Your task to perform on an android device: Open network settings Image 0: 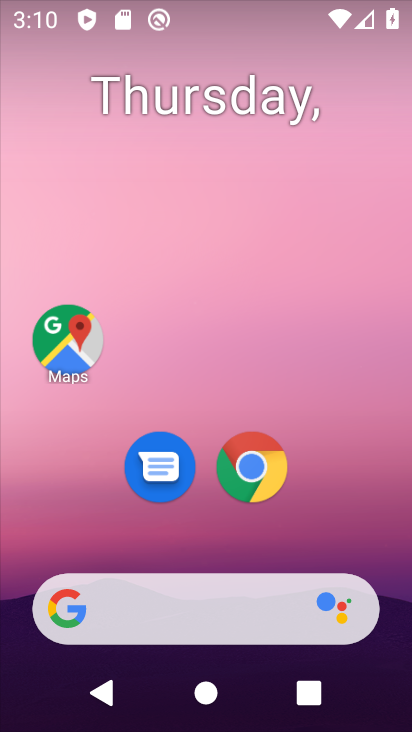
Step 0: drag from (238, 607) to (220, 96)
Your task to perform on an android device: Open network settings Image 1: 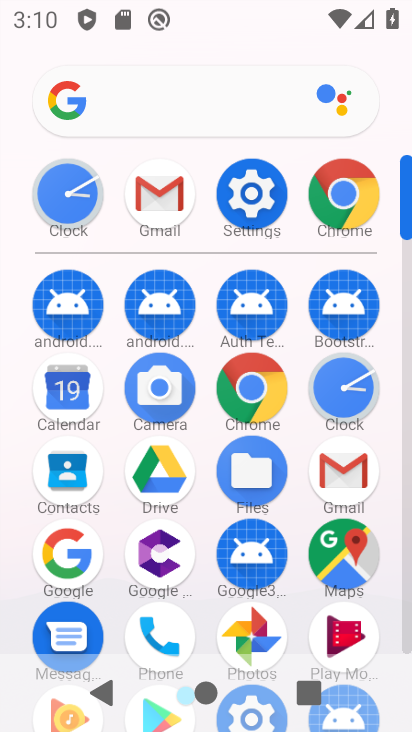
Step 1: click (250, 196)
Your task to perform on an android device: Open network settings Image 2: 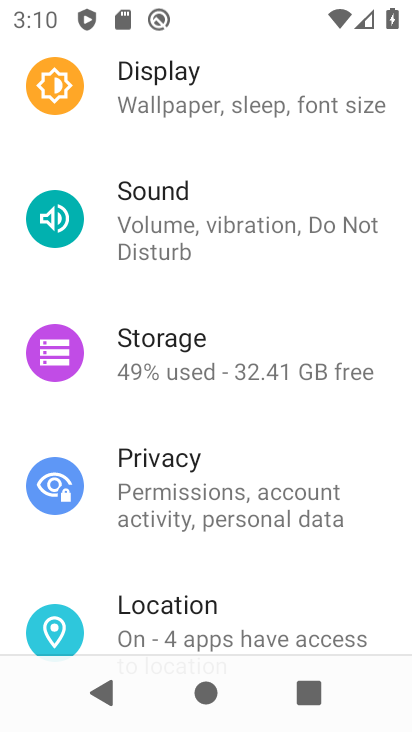
Step 2: drag from (177, 125) to (210, 717)
Your task to perform on an android device: Open network settings Image 3: 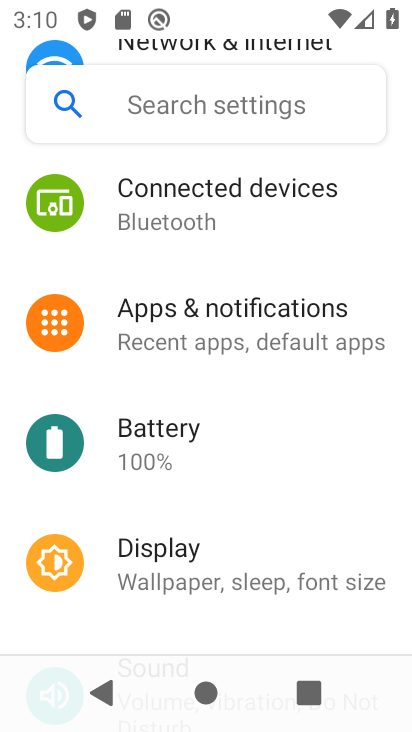
Step 3: drag from (201, 240) to (181, 681)
Your task to perform on an android device: Open network settings Image 4: 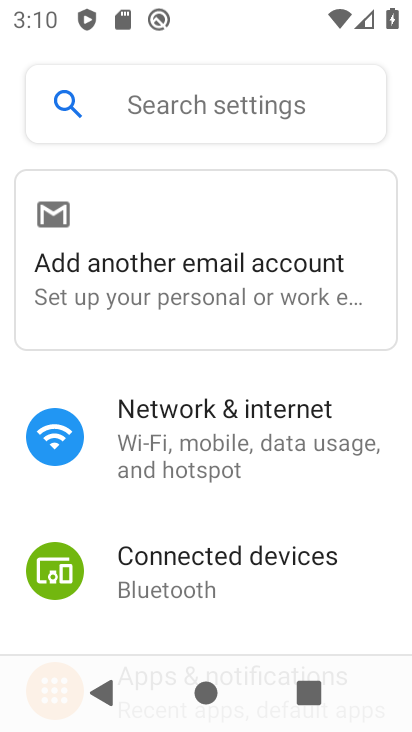
Step 4: click (183, 418)
Your task to perform on an android device: Open network settings Image 5: 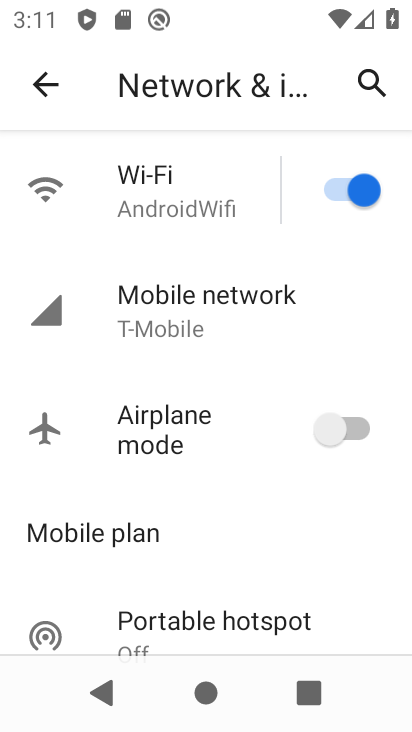
Step 5: task complete